Your task to perform on an android device: Open Maps and search for coffee Image 0: 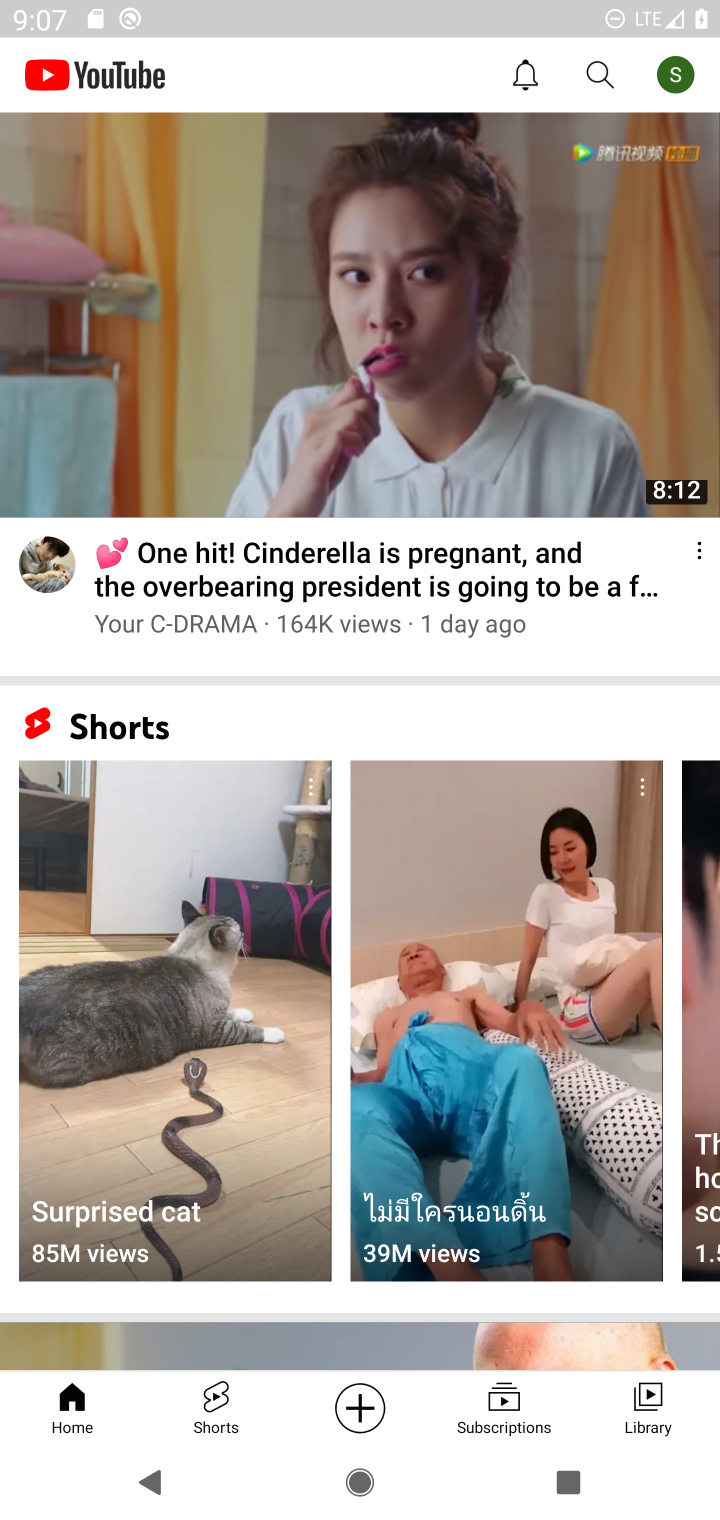
Step 0: press home button
Your task to perform on an android device: Open Maps and search for coffee Image 1: 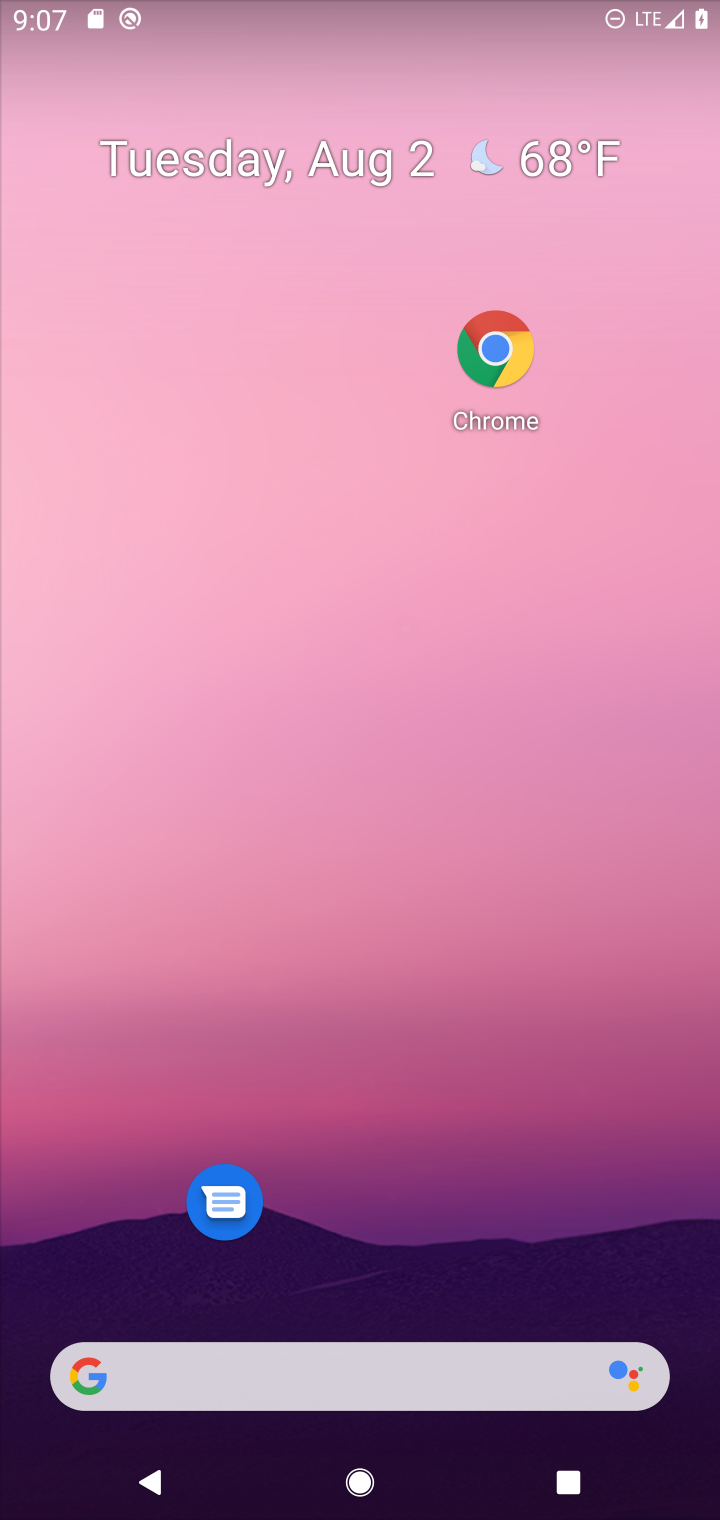
Step 1: drag from (411, 918) to (380, 75)
Your task to perform on an android device: Open Maps and search for coffee Image 2: 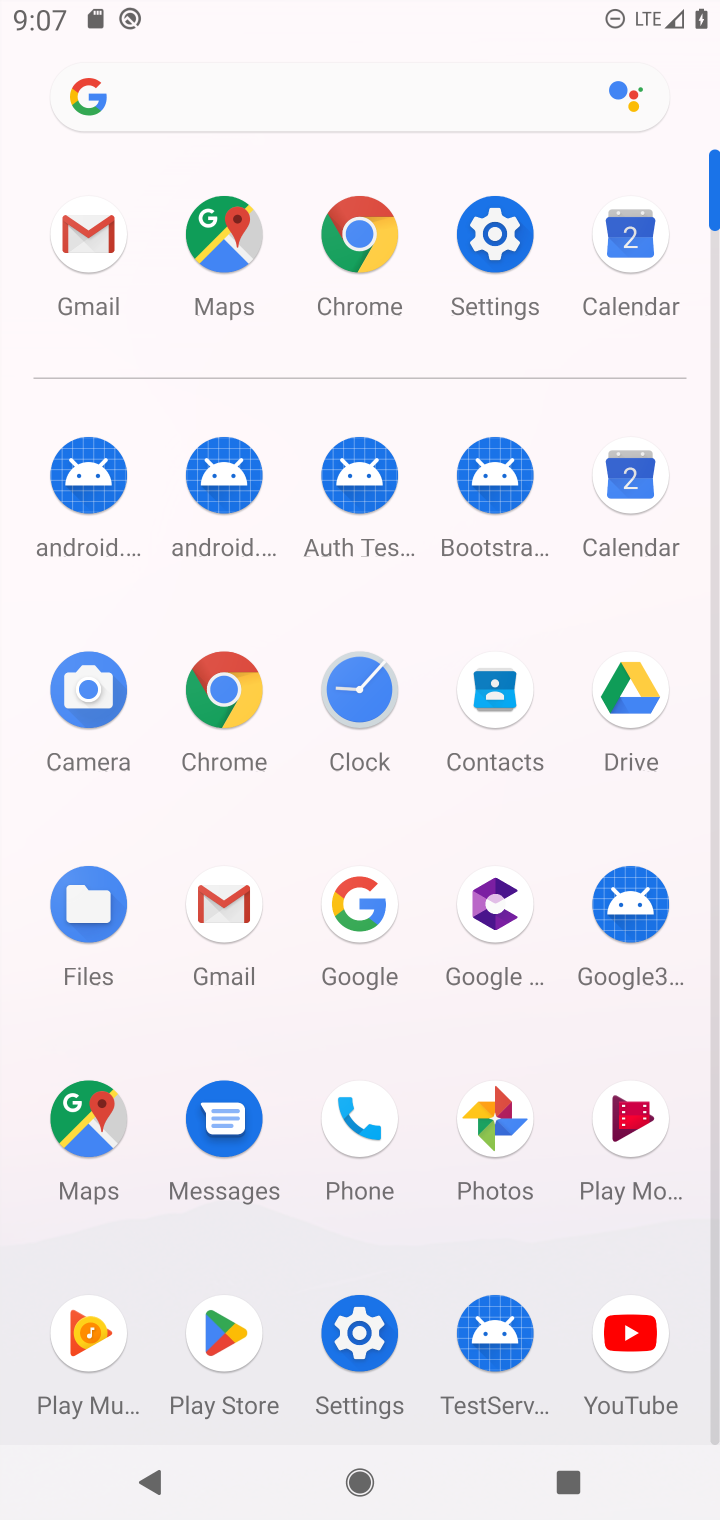
Step 2: click (217, 232)
Your task to perform on an android device: Open Maps and search for coffee Image 3: 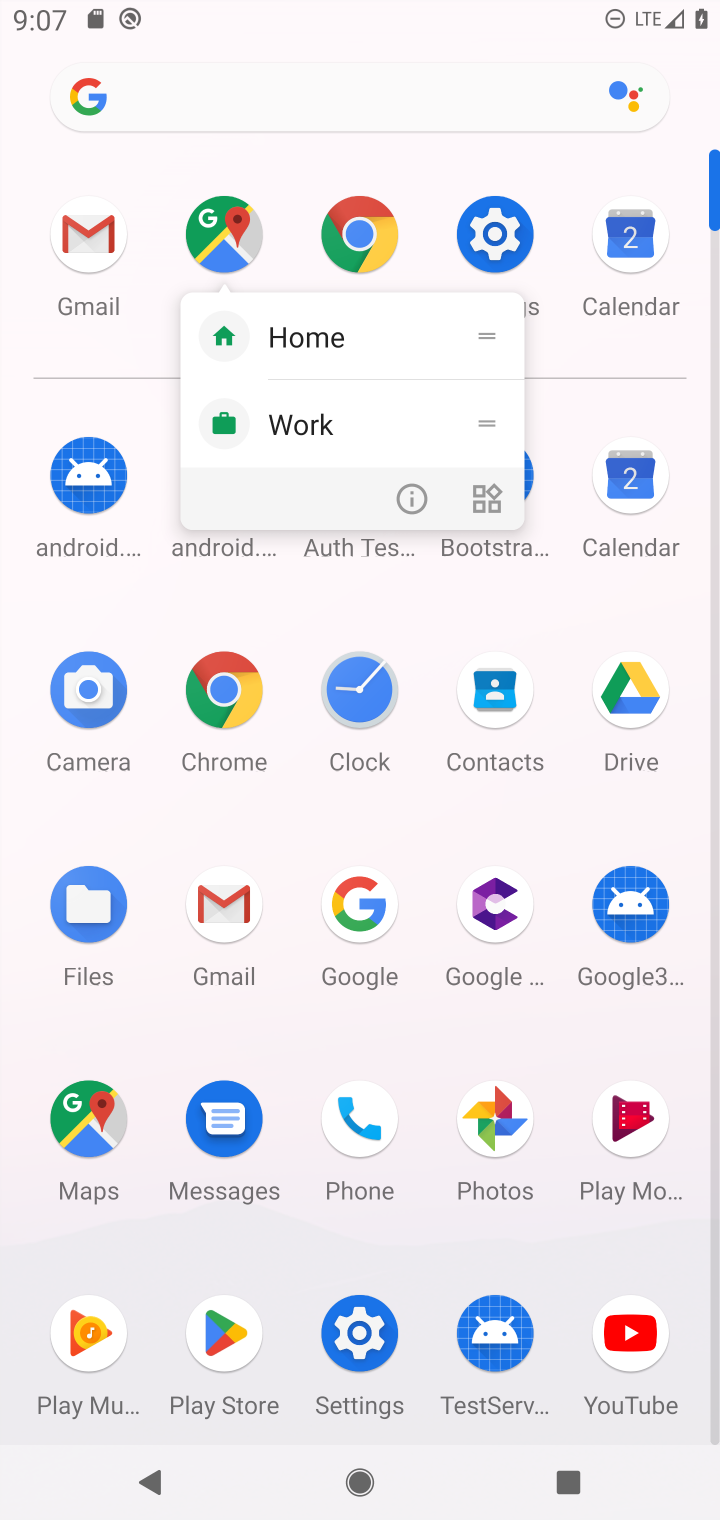
Step 3: click (217, 232)
Your task to perform on an android device: Open Maps and search for coffee Image 4: 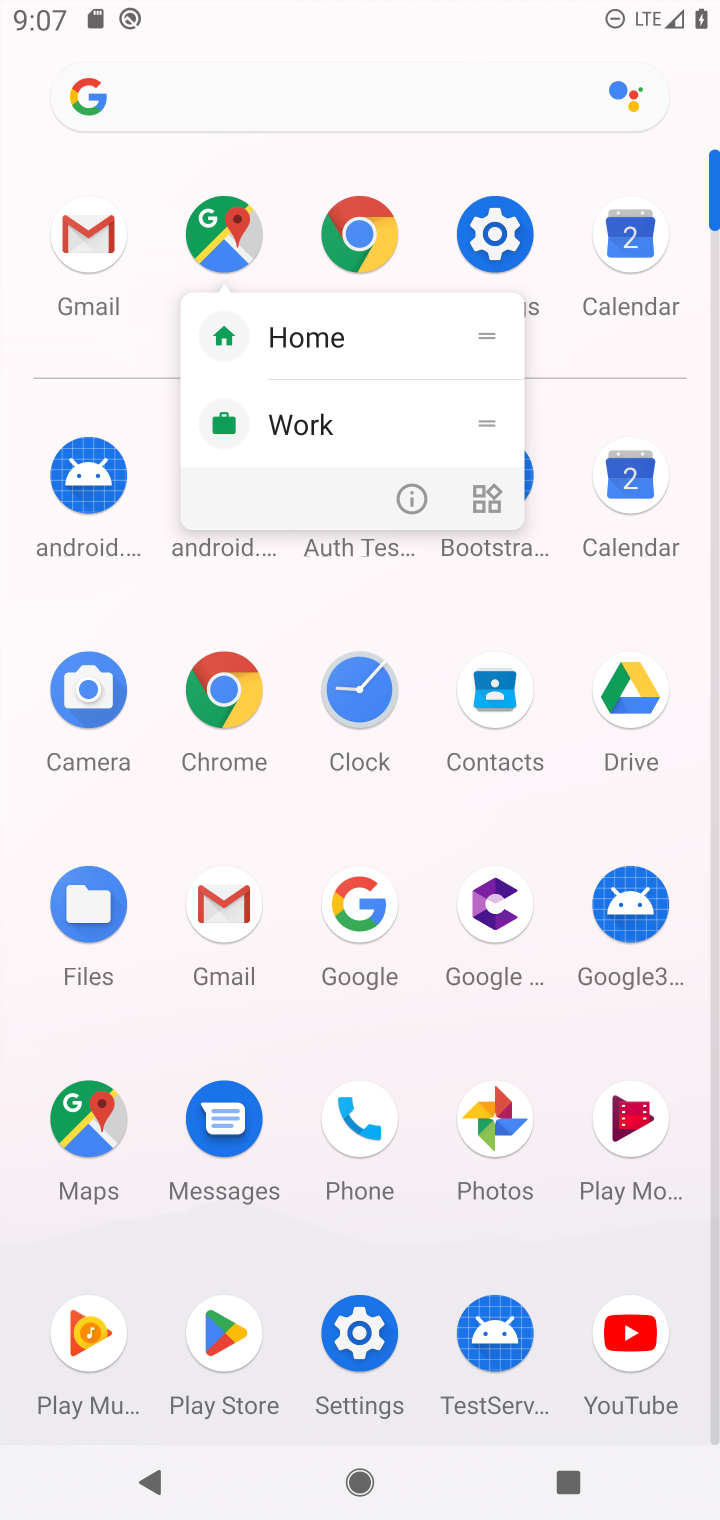
Step 4: click (217, 232)
Your task to perform on an android device: Open Maps and search for coffee Image 5: 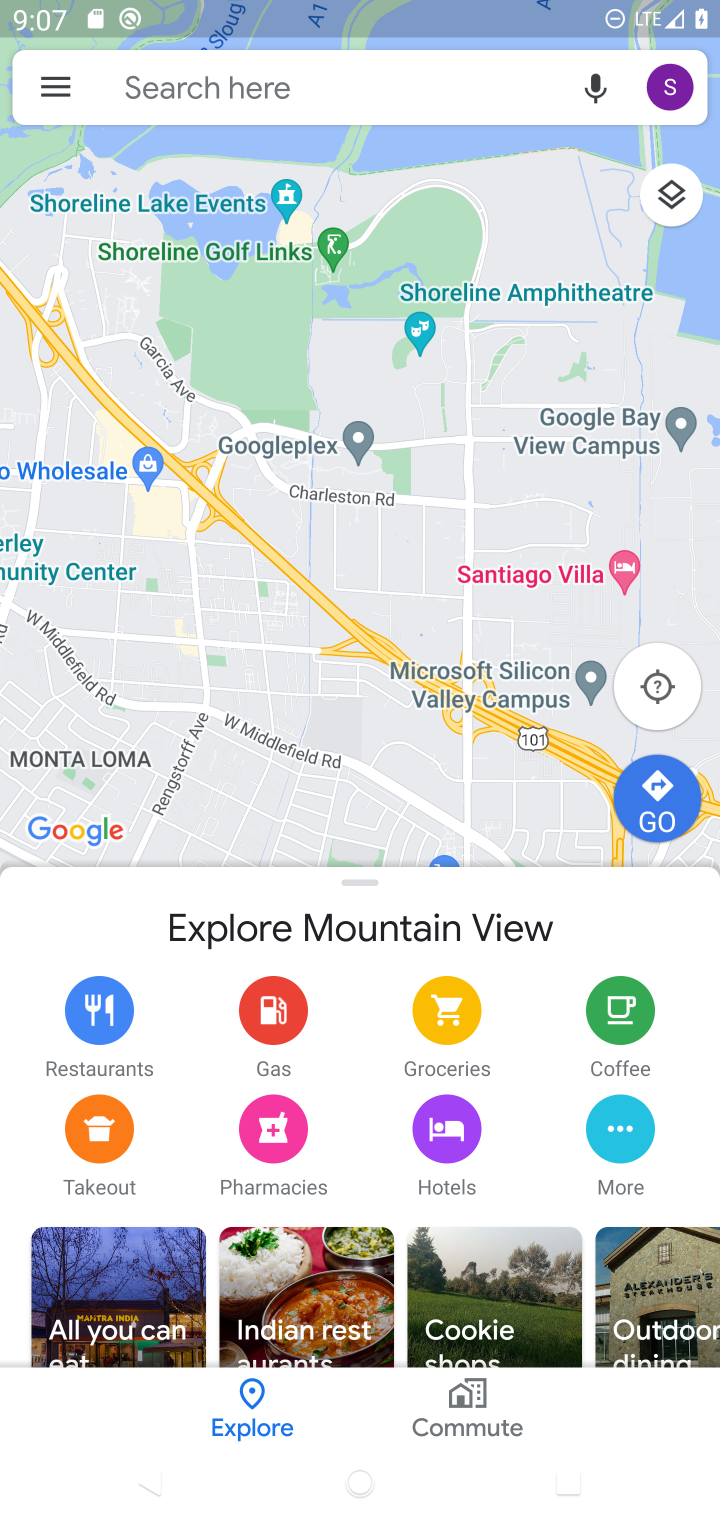
Step 5: click (199, 98)
Your task to perform on an android device: Open Maps and search for coffee Image 6: 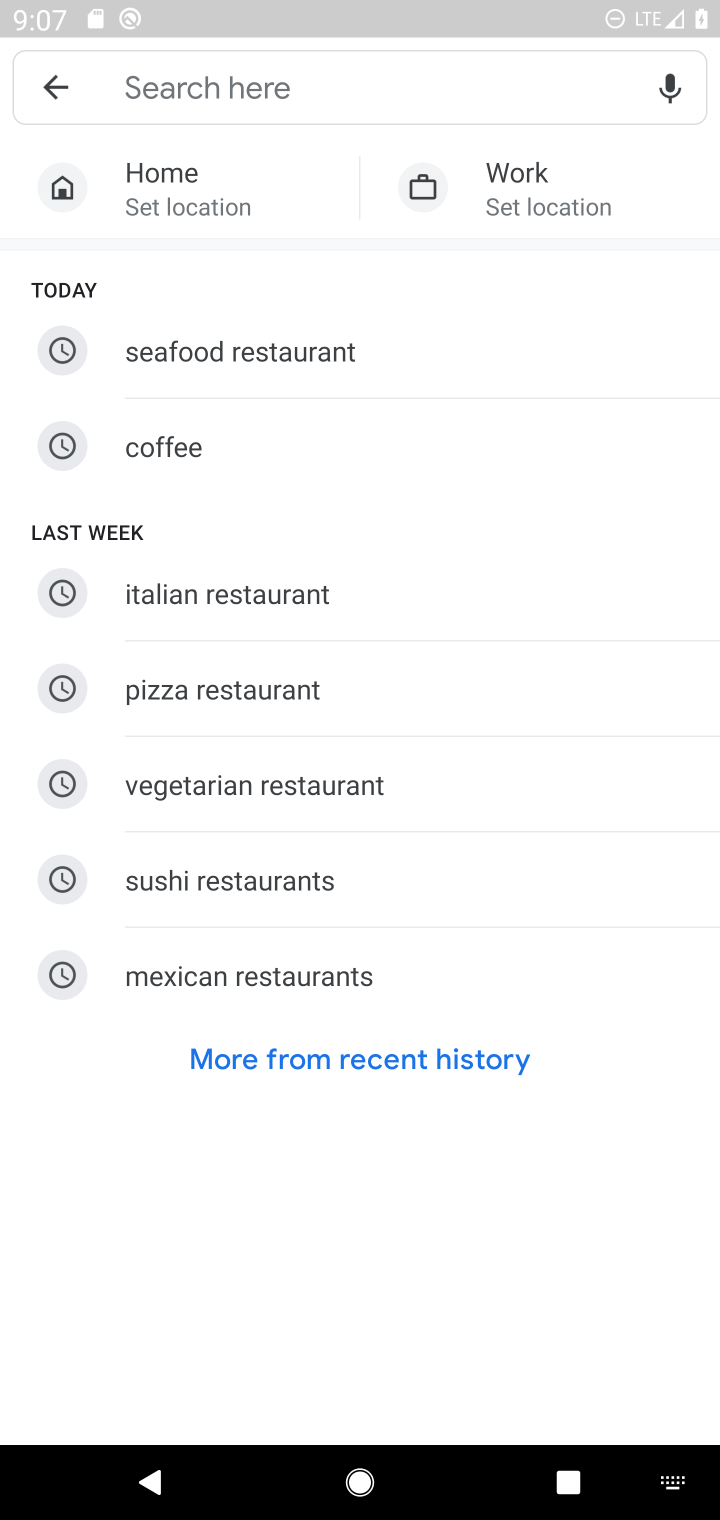
Step 6: click (175, 442)
Your task to perform on an android device: Open Maps and search for coffee Image 7: 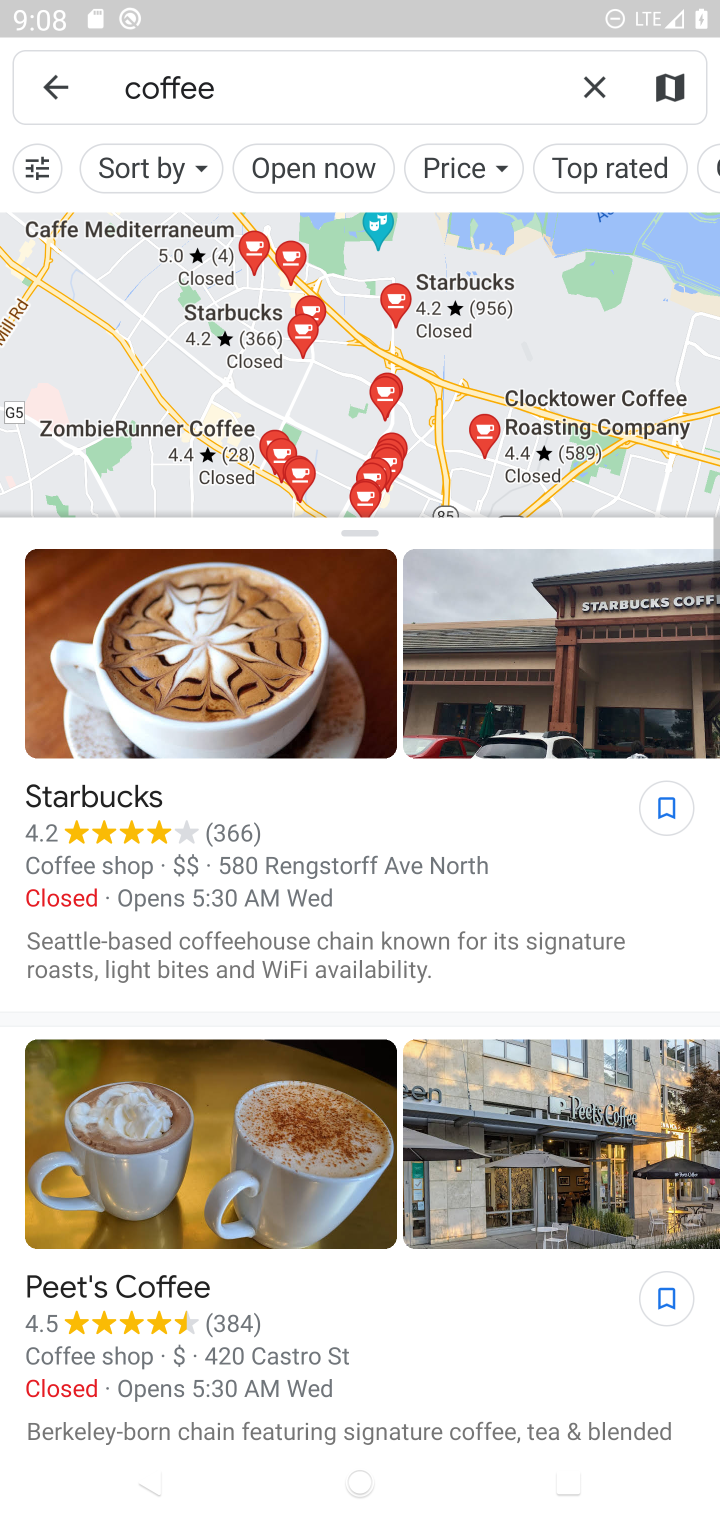
Step 7: task complete